Your task to perform on an android device: Play the last video I watched on Youtube Image 0: 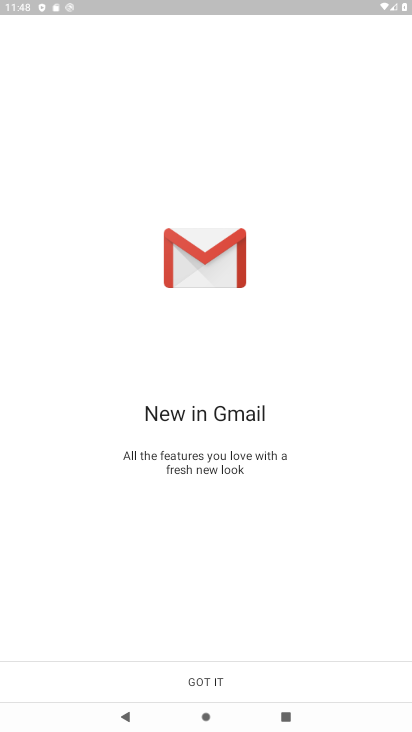
Step 0: click (330, 693)
Your task to perform on an android device: Play the last video I watched on Youtube Image 1: 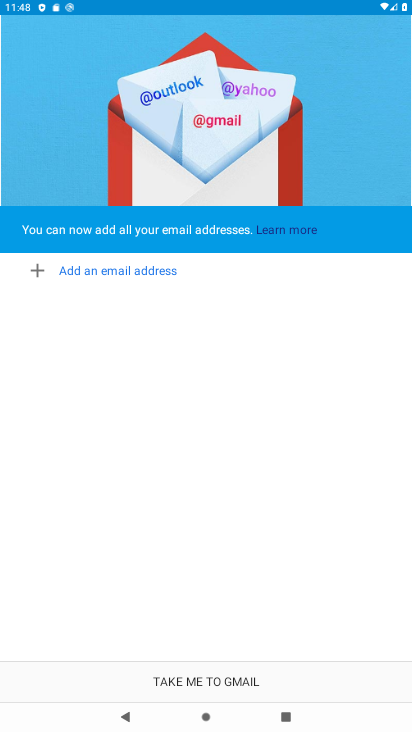
Step 1: press home button
Your task to perform on an android device: Play the last video I watched on Youtube Image 2: 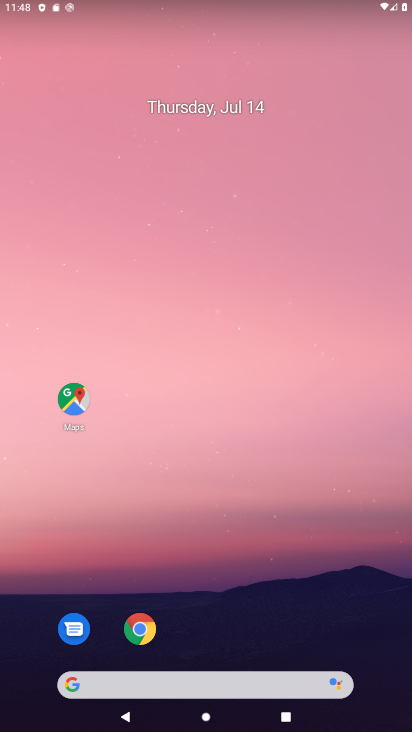
Step 2: drag from (285, 645) to (318, 91)
Your task to perform on an android device: Play the last video I watched on Youtube Image 3: 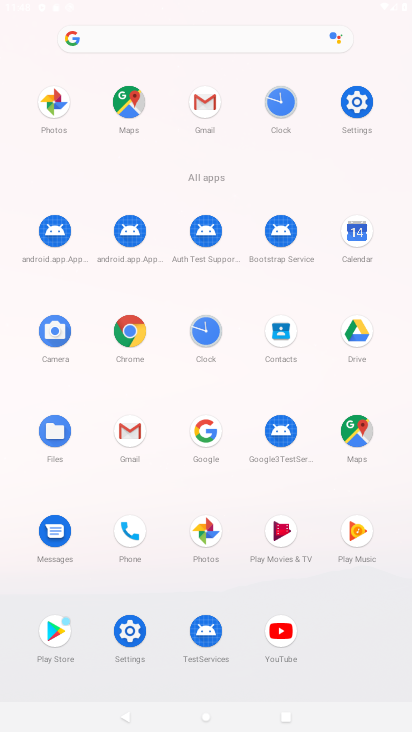
Step 3: click (296, 633)
Your task to perform on an android device: Play the last video I watched on Youtube Image 4: 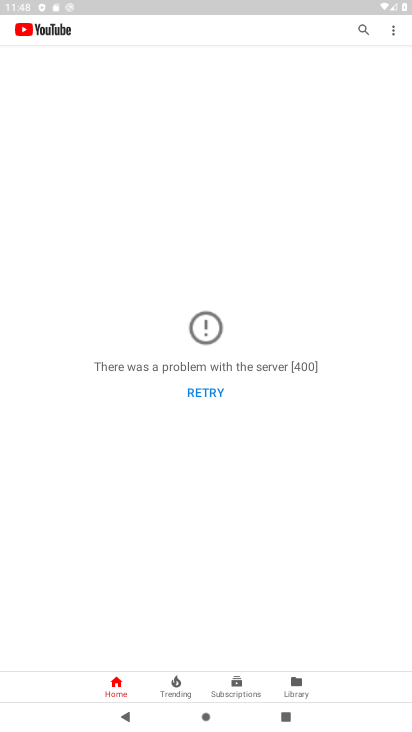
Step 4: click (300, 681)
Your task to perform on an android device: Play the last video I watched on Youtube Image 5: 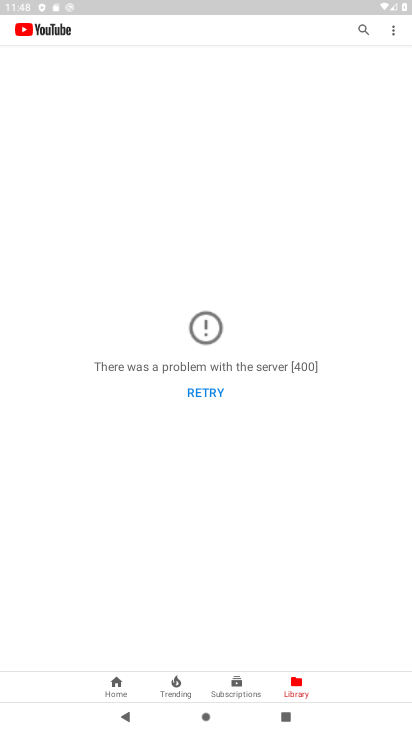
Step 5: task complete